Your task to perform on an android device: manage bookmarks in the chrome app Image 0: 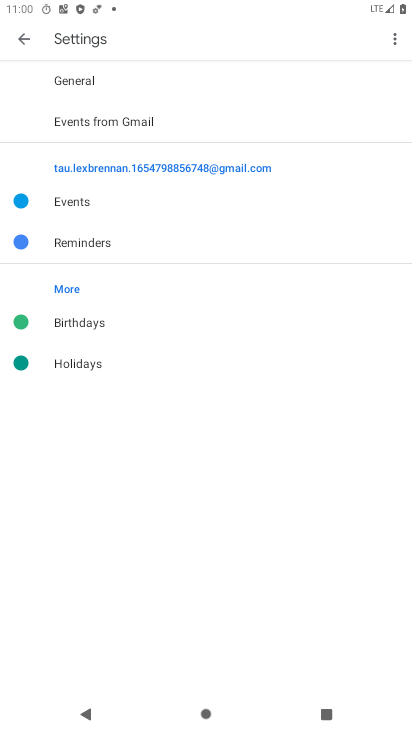
Step 0: press home button
Your task to perform on an android device: manage bookmarks in the chrome app Image 1: 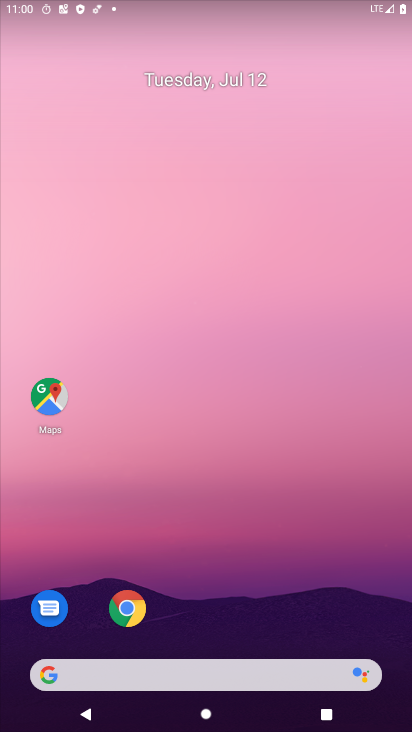
Step 1: click (127, 613)
Your task to perform on an android device: manage bookmarks in the chrome app Image 2: 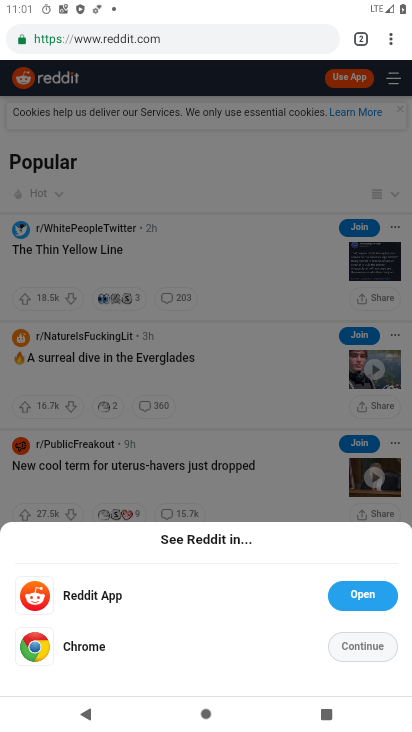
Step 2: click (393, 35)
Your task to perform on an android device: manage bookmarks in the chrome app Image 3: 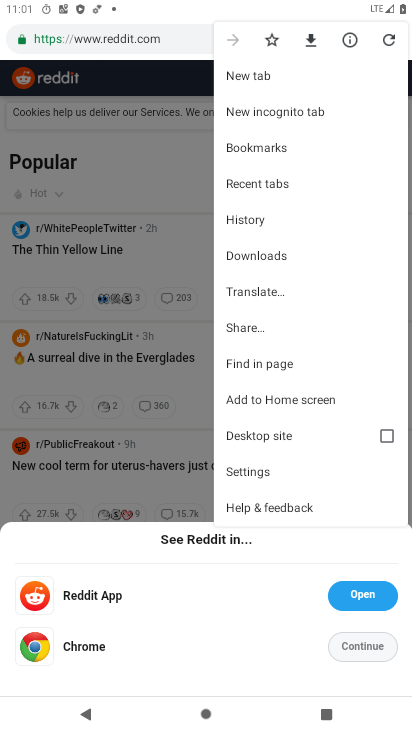
Step 3: click (285, 143)
Your task to perform on an android device: manage bookmarks in the chrome app Image 4: 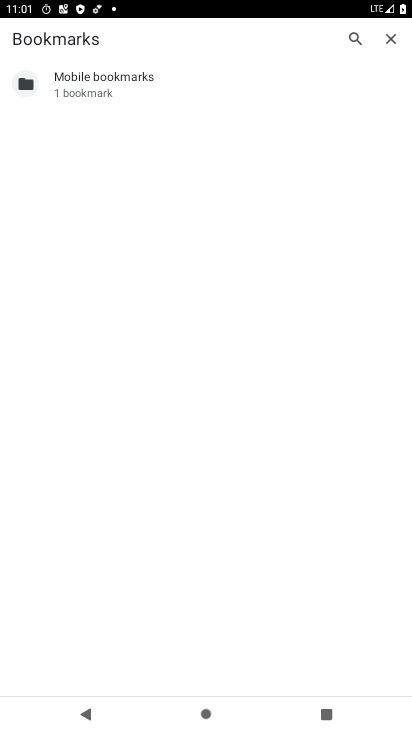
Step 4: click (254, 80)
Your task to perform on an android device: manage bookmarks in the chrome app Image 5: 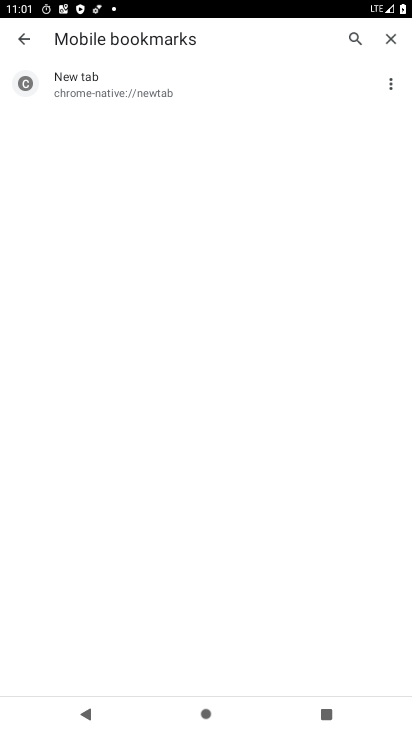
Step 5: click (377, 84)
Your task to perform on an android device: manage bookmarks in the chrome app Image 6: 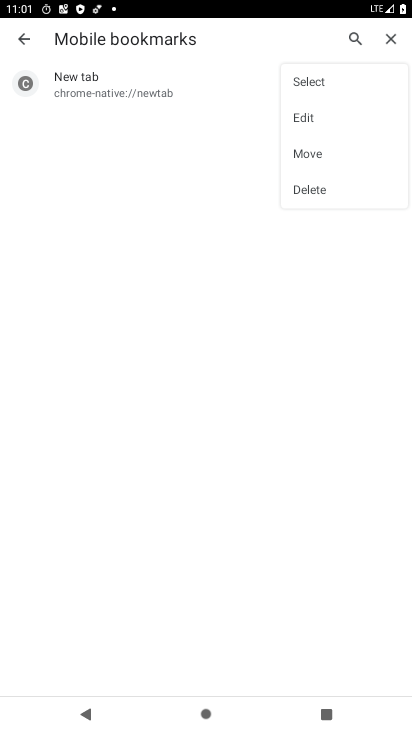
Step 6: click (350, 196)
Your task to perform on an android device: manage bookmarks in the chrome app Image 7: 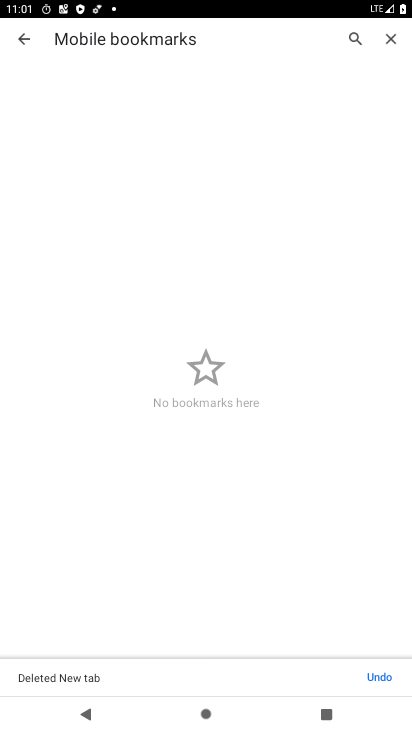
Step 7: task complete